Your task to perform on an android device: delete the emails in spam in the gmail app Image 0: 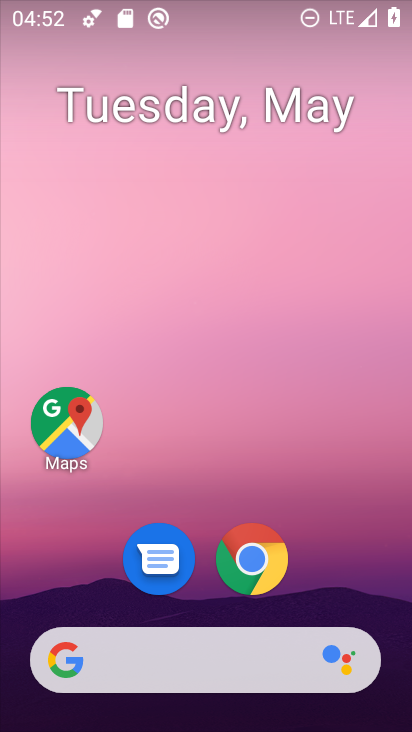
Step 0: drag from (220, 722) to (261, 162)
Your task to perform on an android device: delete the emails in spam in the gmail app Image 1: 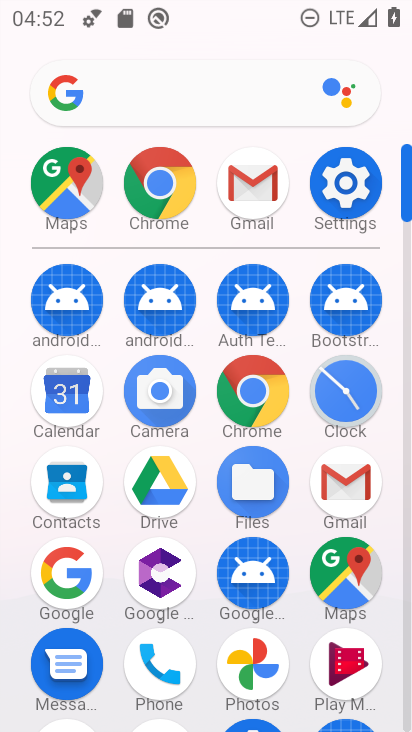
Step 1: click (339, 477)
Your task to perform on an android device: delete the emails in spam in the gmail app Image 2: 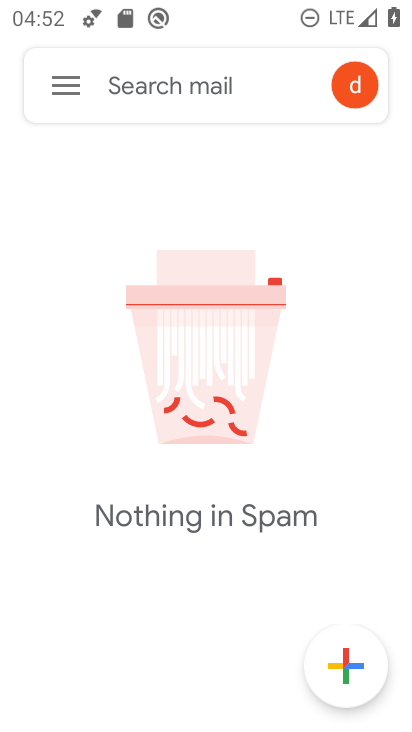
Step 2: click (57, 83)
Your task to perform on an android device: delete the emails in spam in the gmail app Image 3: 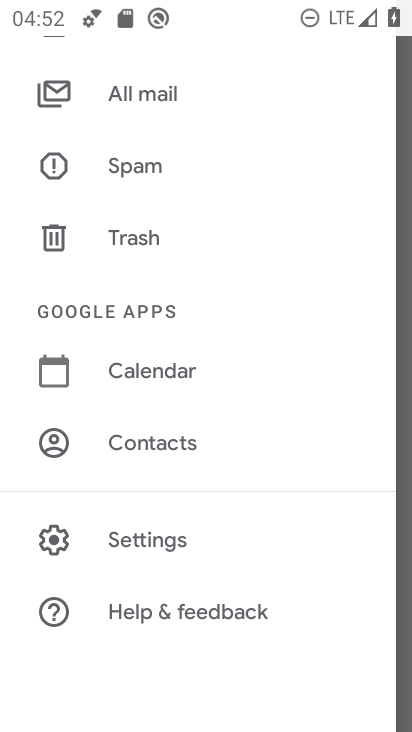
Step 3: click (132, 160)
Your task to perform on an android device: delete the emails in spam in the gmail app Image 4: 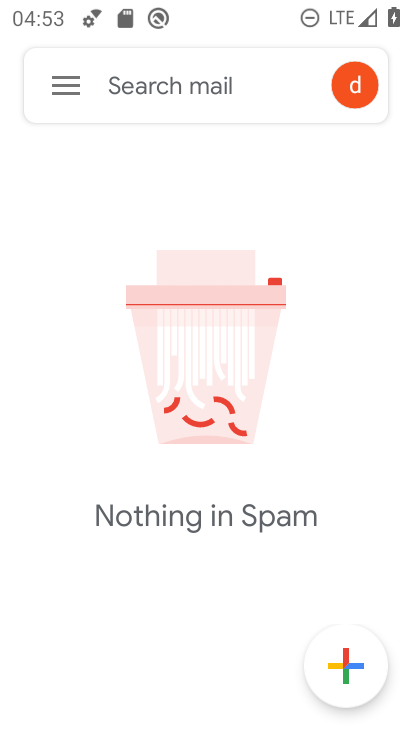
Step 4: task complete